Your task to perform on an android device: Search for Mexican restaurants on Maps Image 0: 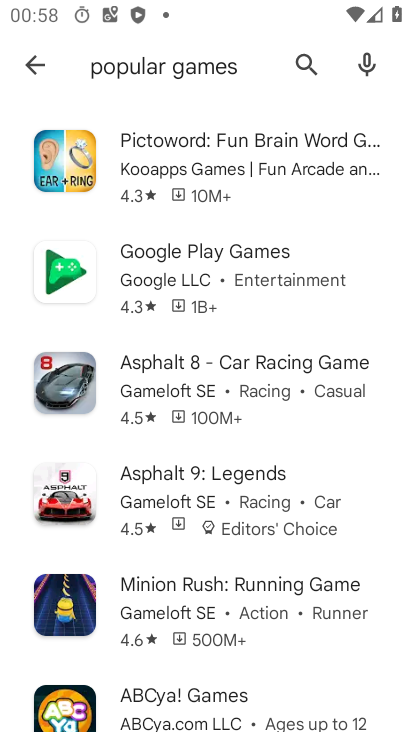
Step 0: press home button
Your task to perform on an android device: Search for Mexican restaurants on Maps Image 1: 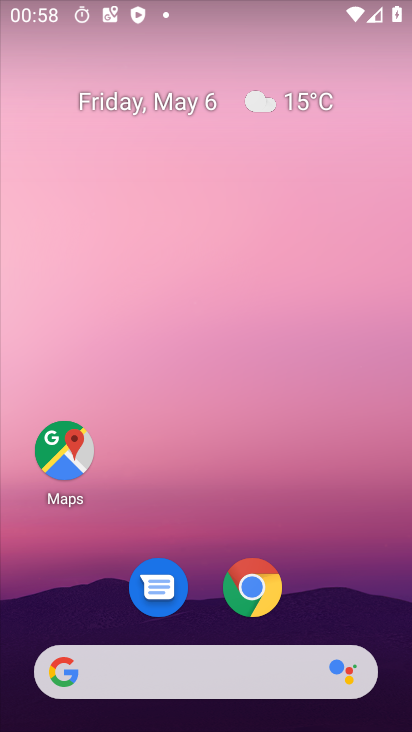
Step 1: click (58, 442)
Your task to perform on an android device: Search for Mexican restaurants on Maps Image 2: 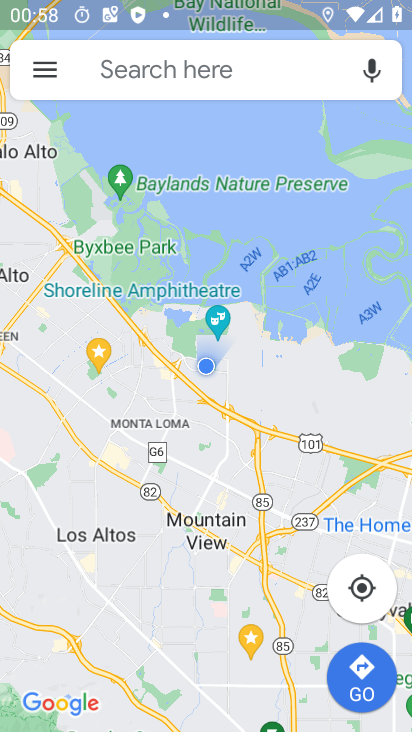
Step 2: click (201, 77)
Your task to perform on an android device: Search for Mexican restaurants on Maps Image 3: 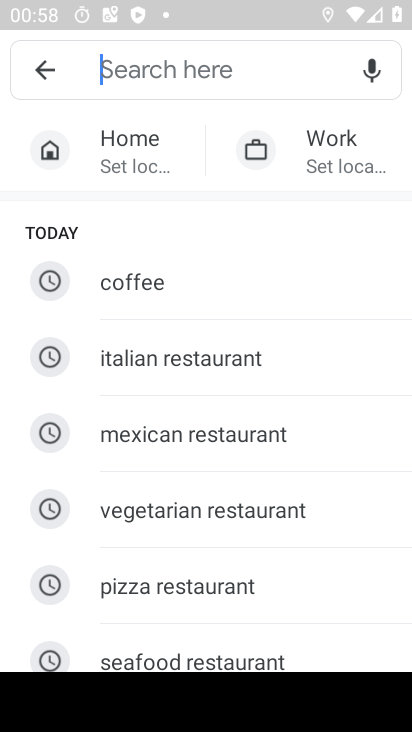
Step 3: type "Mexican restaurants "
Your task to perform on an android device: Search for Mexican restaurants on Maps Image 4: 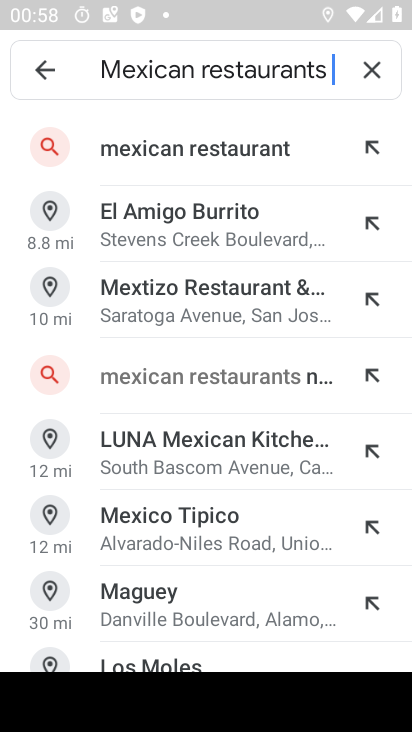
Step 4: click (210, 152)
Your task to perform on an android device: Search for Mexican restaurants on Maps Image 5: 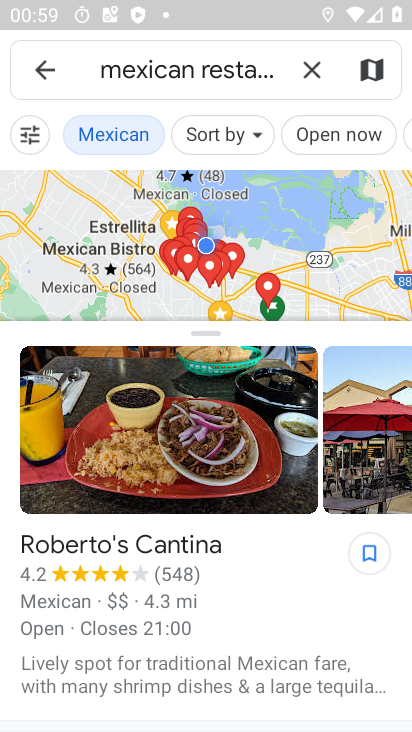
Step 5: task complete